Your task to perform on an android device: toggle javascript in the chrome app Image 0: 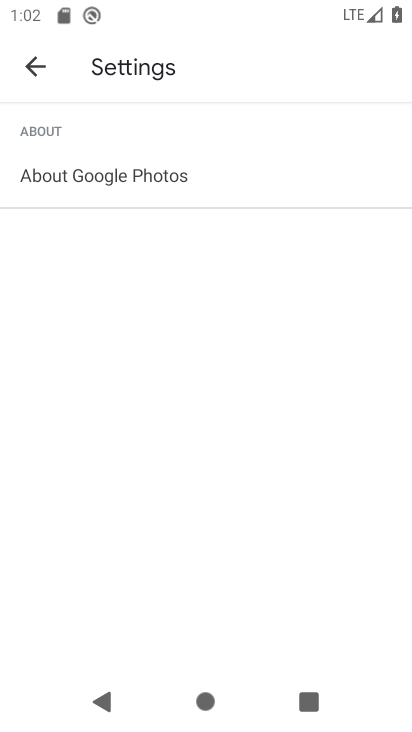
Step 0: press home button
Your task to perform on an android device: toggle javascript in the chrome app Image 1: 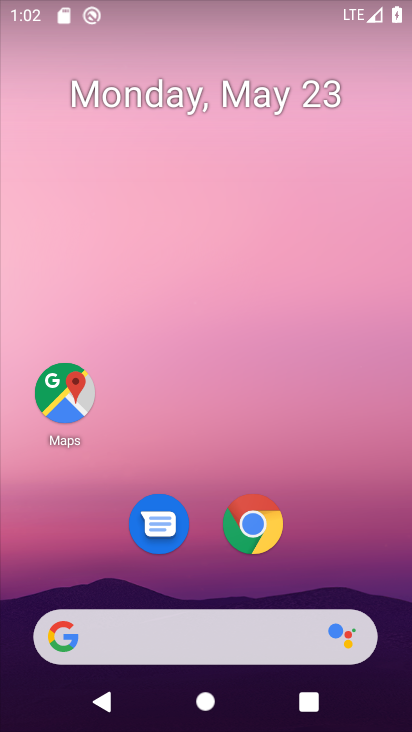
Step 1: click (254, 522)
Your task to perform on an android device: toggle javascript in the chrome app Image 2: 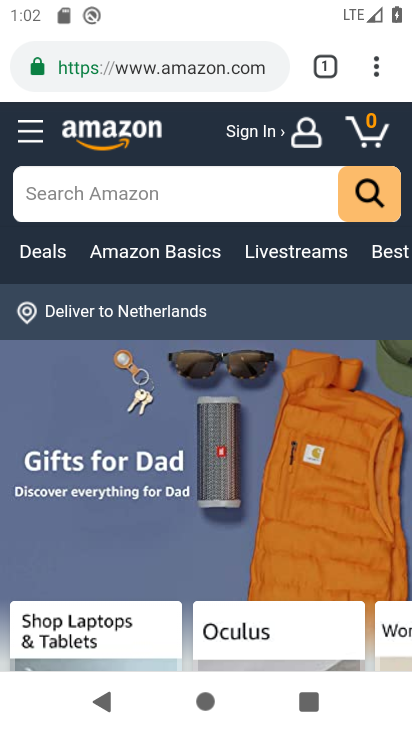
Step 2: click (373, 64)
Your task to perform on an android device: toggle javascript in the chrome app Image 3: 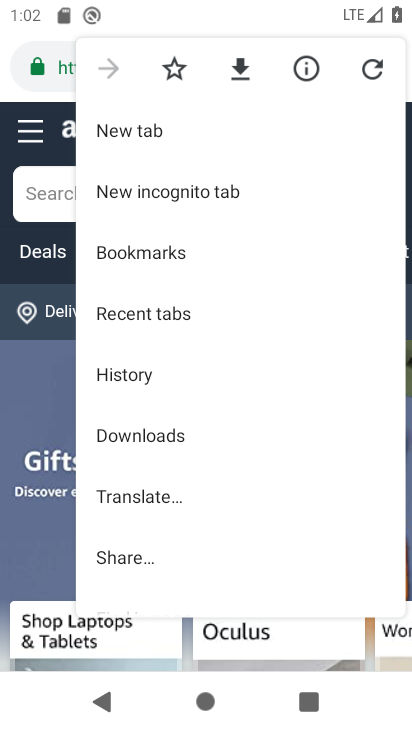
Step 3: drag from (222, 531) to (216, 282)
Your task to perform on an android device: toggle javascript in the chrome app Image 4: 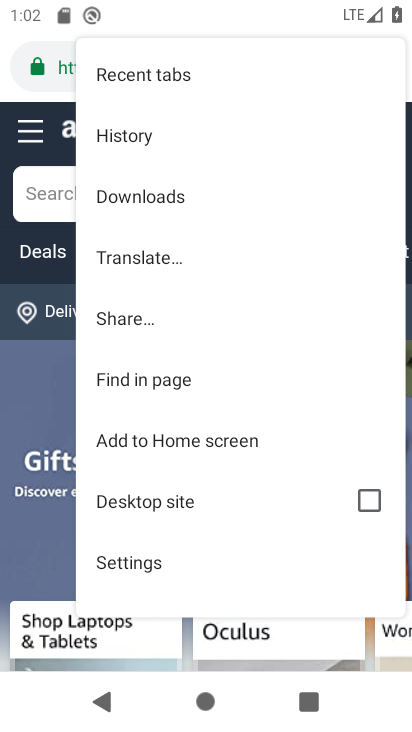
Step 4: click (189, 564)
Your task to perform on an android device: toggle javascript in the chrome app Image 5: 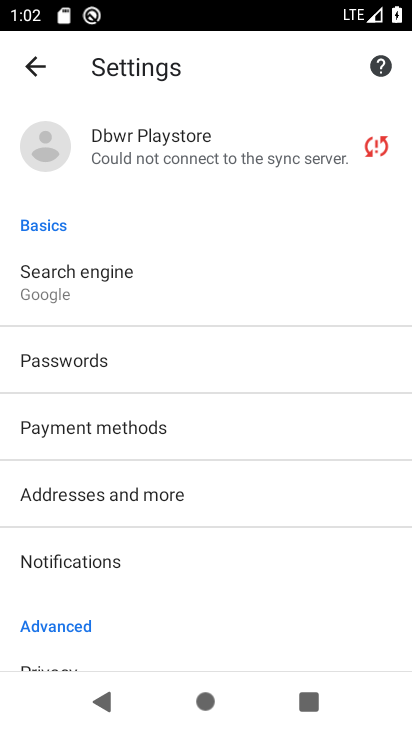
Step 5: drag from (229, 537) to (227, 258)
Your task to perform on an android device: toggle javascript in the chrome app Image 6: 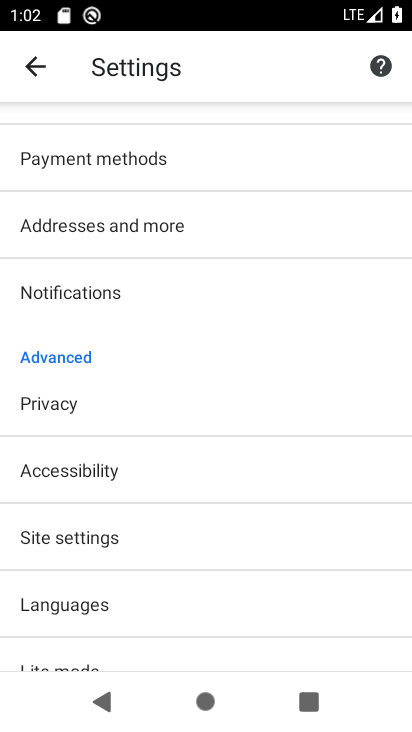
Step 6: click (192, 539)
Your task to perform on an android device: toggle javascript in the chrome app Image 7: 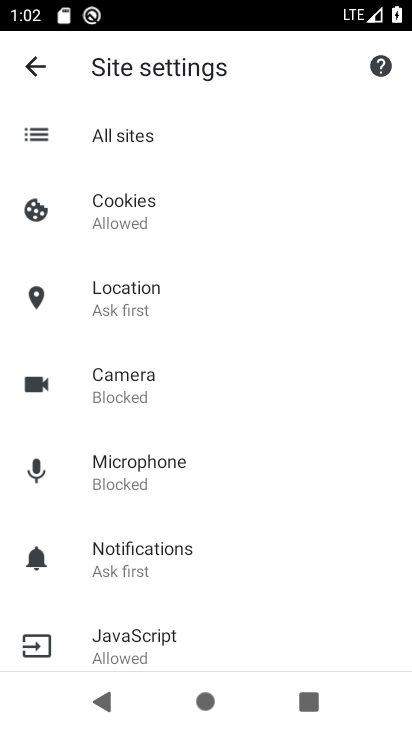
Step 7: drag from (242, 384) to (221, 231)
Your task to perform on an android device: toggle javascript in the chrome app Image 8: 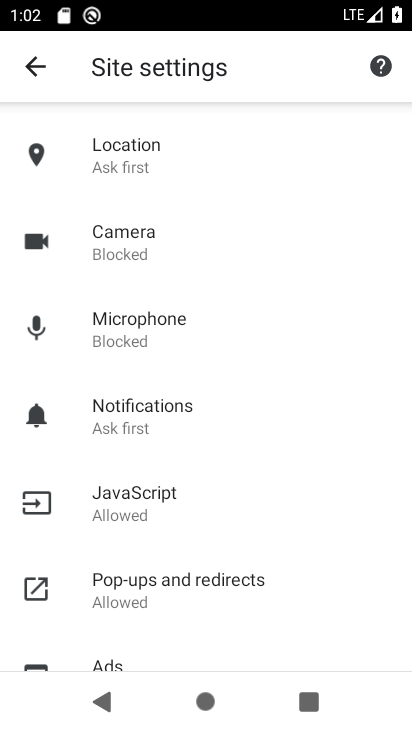
Step 8: click (187, 514)
Your task to perform on an android device: toggle javascript in the chrome app Image 9: 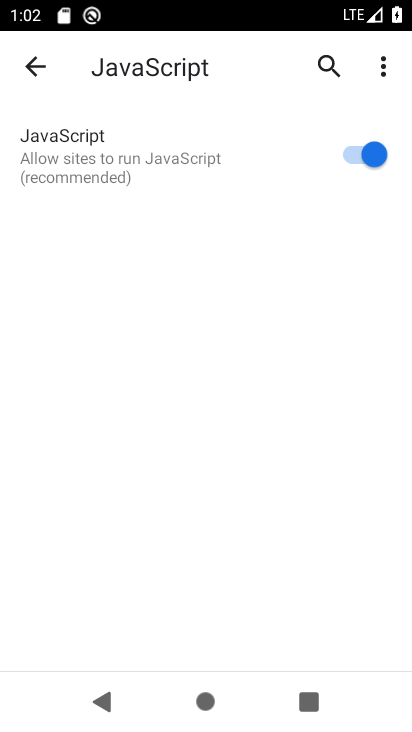
Step 9: click (357, 147)
Your task to perform on an android device: toggle javascript in the chrome app Image 10: 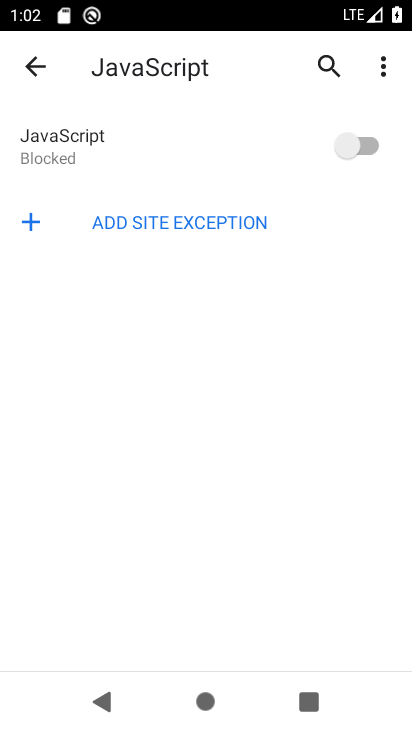
Step 10: task complete